Your task to perform on an android device: Open my contact list Image 0: 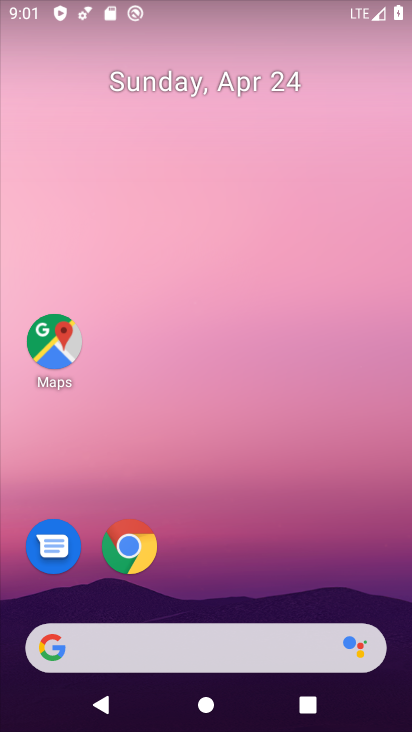
Step 0: drag from (302, 595) to (275, 114)
Your task to perform on an android device: Open my contact list Image 1: 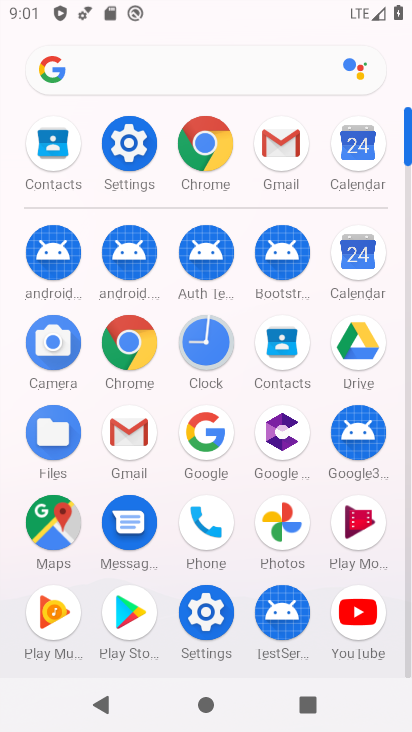
Step 1: click (269, 341)
Your task to perform on an android device: Open my contact list Image 2: 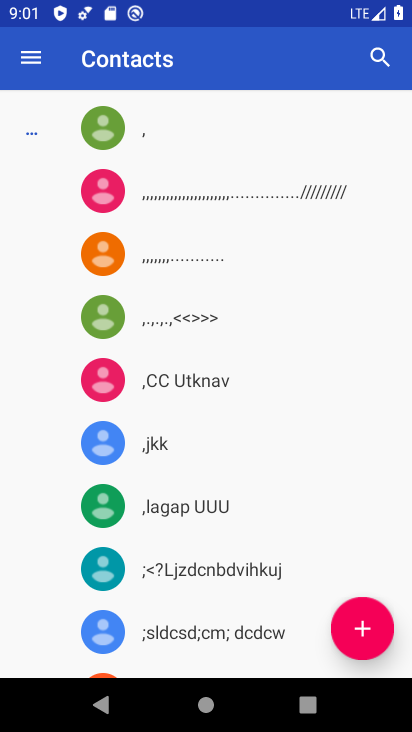
Step 2: task complete